Your task to perform on an android device: Turn on the flashlight Image 0: 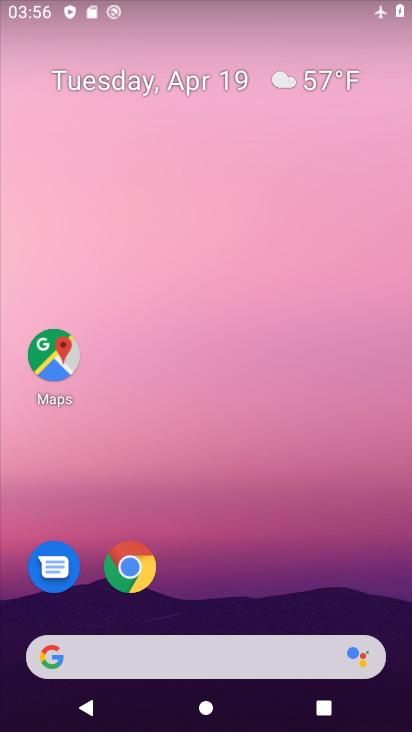
Step 0: drag from (222, 0) to (220, 396)
Your task to perform on an android device: Turn on the flashlight Image 1: 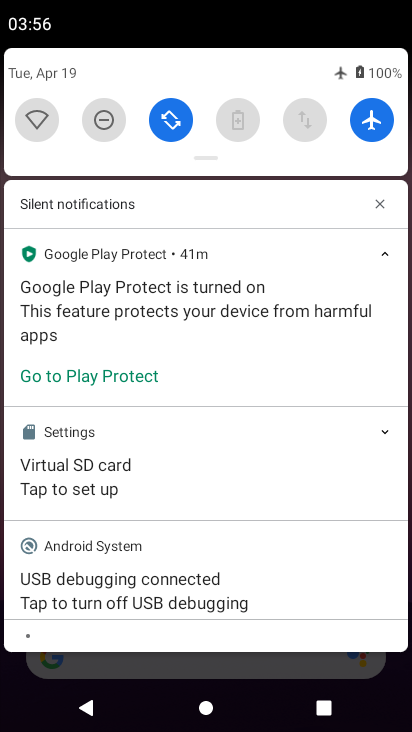
Step 1: task complete